Your task to perform on an android device: Search for seafood restaurants on Google Maps Image 0: 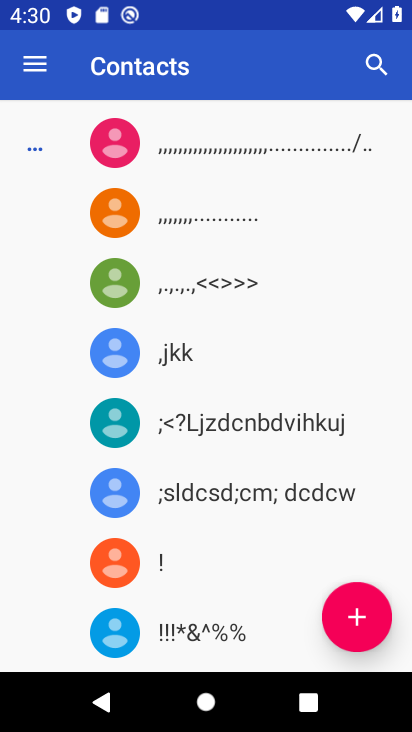
Step 0: press home button
Your task to perform on an android device: Search for seafood restaurants on Google Maps Image 1: 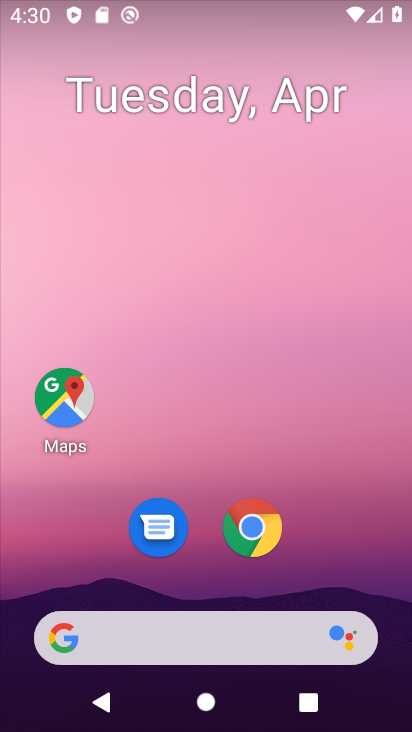
Step 1: click (75, 389)
Your task to perform on an android device: Search for seafood restaurants on Google Maps Image 2: 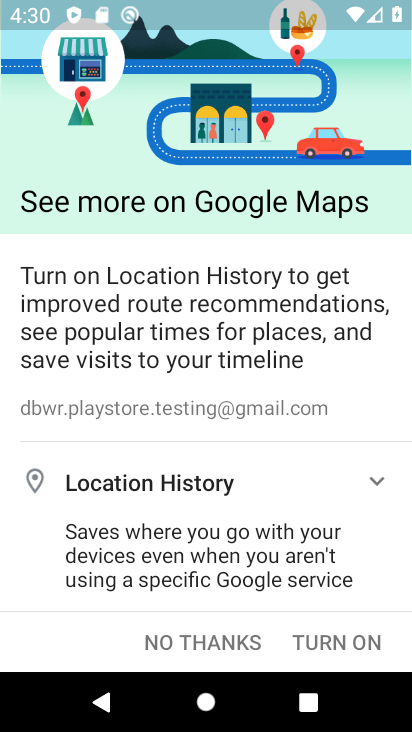
Step 2: click (331, 639)
Your task to perform on an android device: Search for seafood restaurants on Google Maps Image 3: 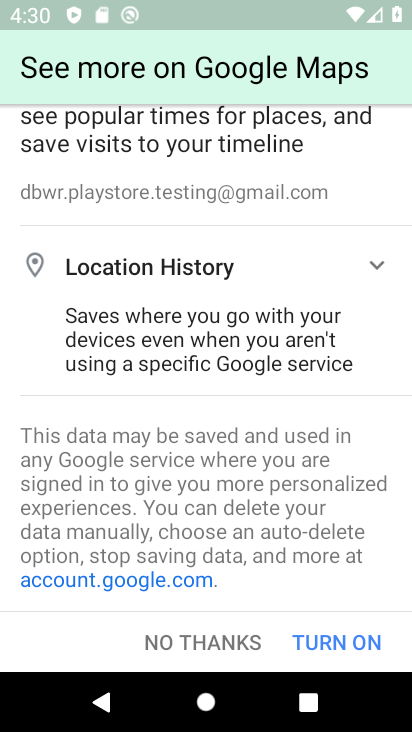
Step 3: click (373, 641)
Your task to perform on an android device: Search for seafood restaurants on Google Maps Image 4: 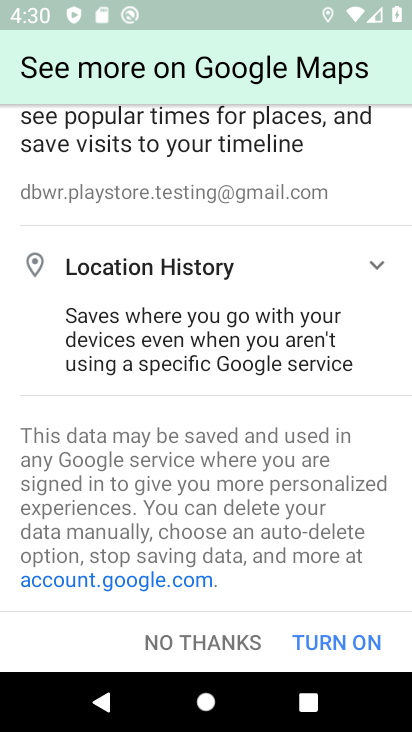
Step 4: click (335, 637)
Your task to perform on an android device: Search for seafood restaurants on Google Maps Image 5: 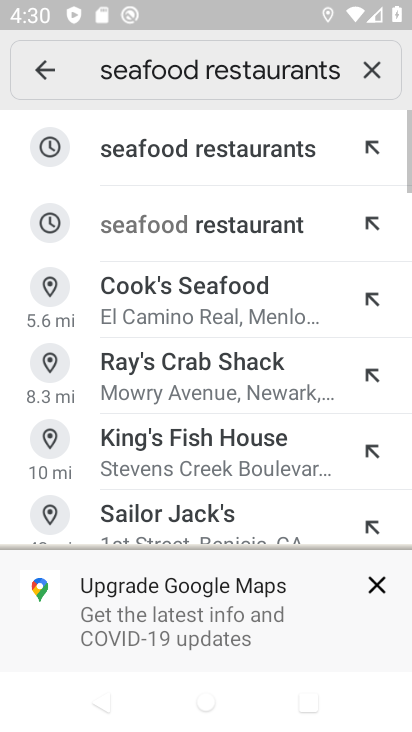
Step 5: task complete